Your task to perform on an android device: Open Android settings Image 0: 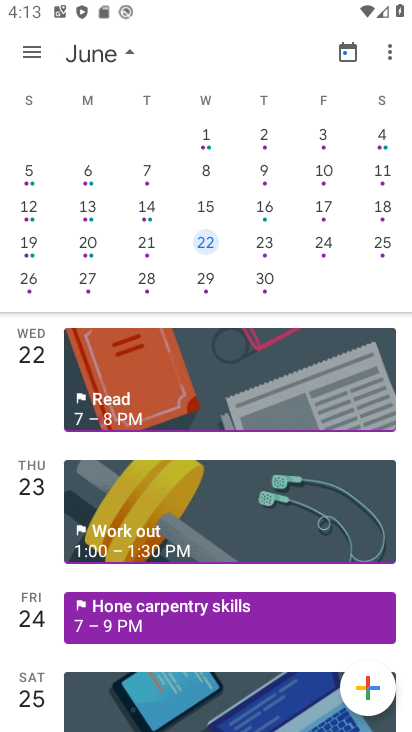
Step 0: press back button
Your task to perform on an android device: Open Android settings Image 1: 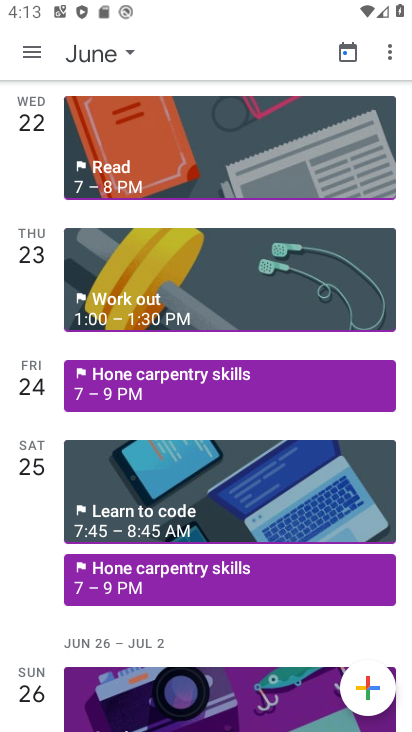
Step 1: press home button
Your task to perform on an android device: Open Android settings Image 2: 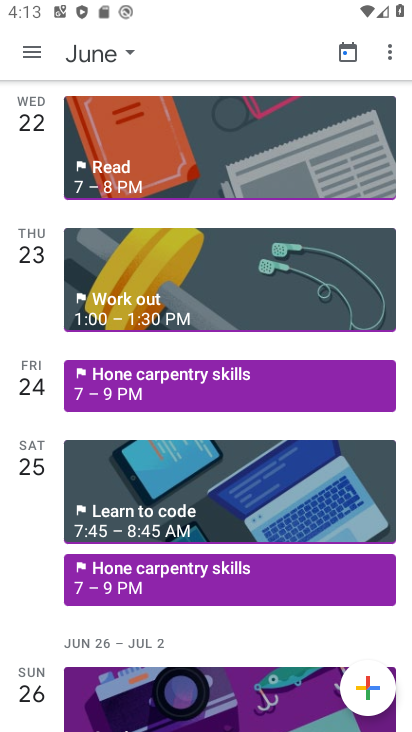
Step 2: press home button
Your task to perform on an android device: Open Android settings Image 3: 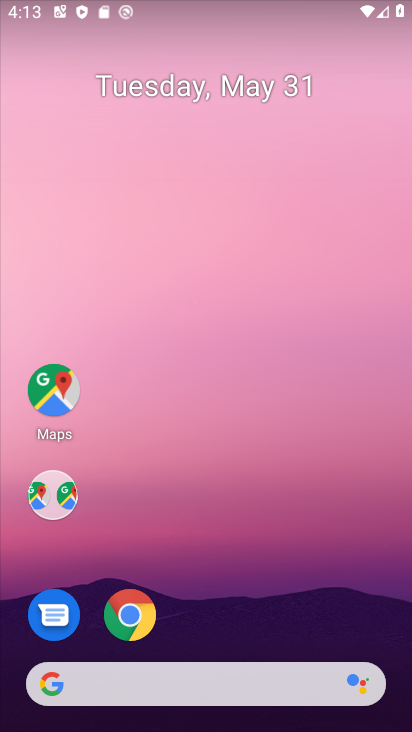
Step 3: drag from (226, 484) to (203, 141)
Your task to perform on an android device: Open Android settings Image 4: 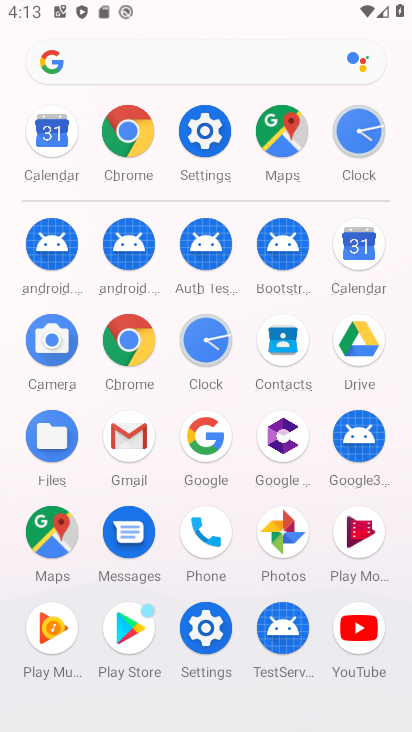
Step 4: click (212, 146)
Your task to perform on an android device: Open Android settings Image 5: 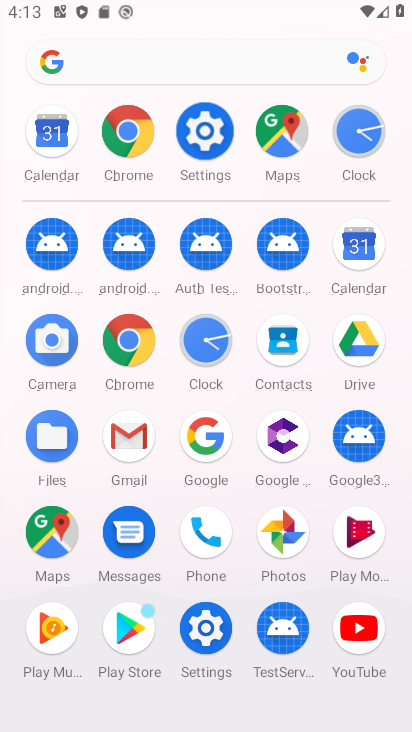
Step 5: click (212, 144)
Your task to perform on an android device: Open Android settings Image 6: 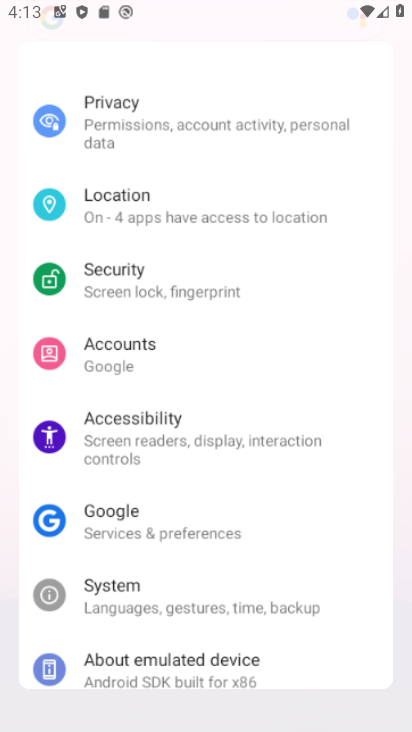
Step 6: click (212, 144)
Your task to perform on an android device: Open Android settings Image 7: 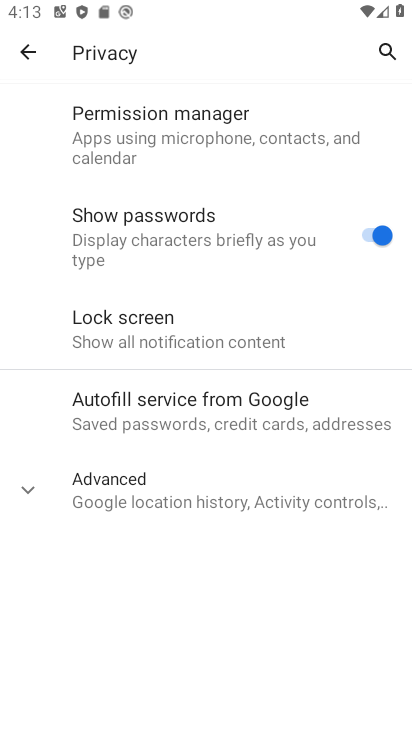
Step 7: click (22, 54)
Your task to perform on an android device: Open Android settings Image 8: 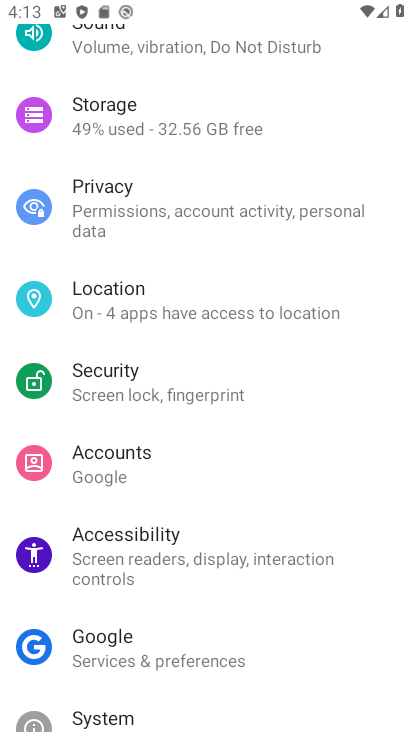
Step 8: drag from (119, 213) to (103, 259)
Your task to perform on an android device: Open Android settings Image 9: 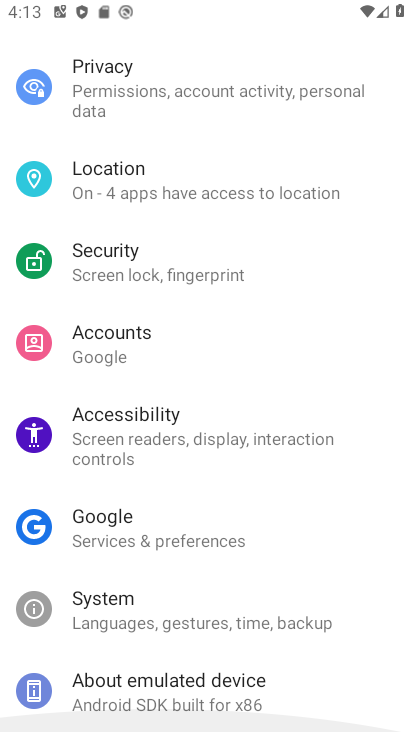
Step 9: drag from (155, 485) to (172, 225)
Your task to perform on an android device: Open Android settings Image 10: 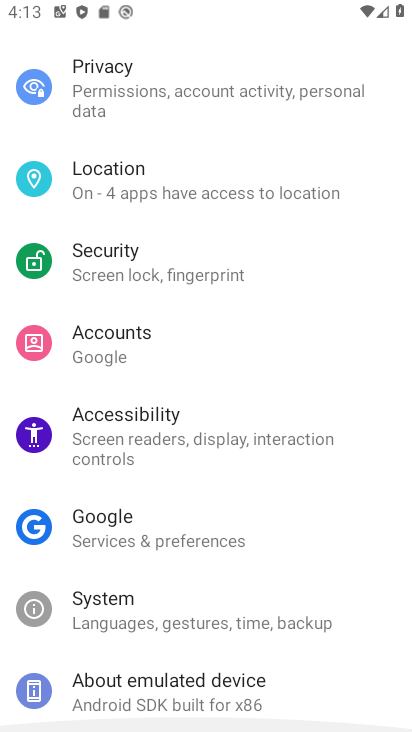
Step 10: drag from (172, 391) to (187, 187)
Your task to perform on an android device: Open Android settings Image 11: 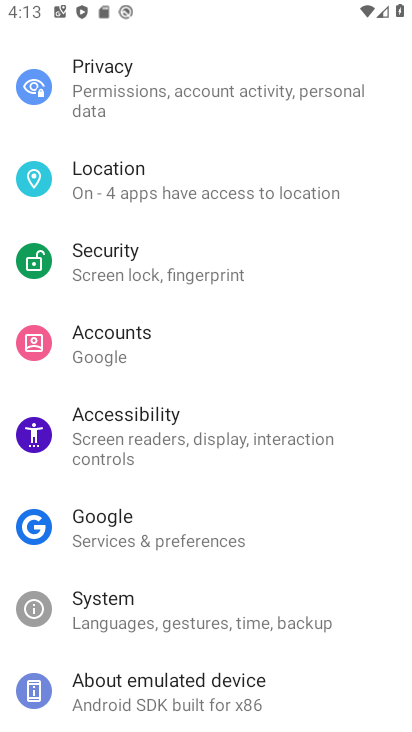
Step 11: click (168, 692)
Your task to perform on an android device: Open Android settings Image 12: 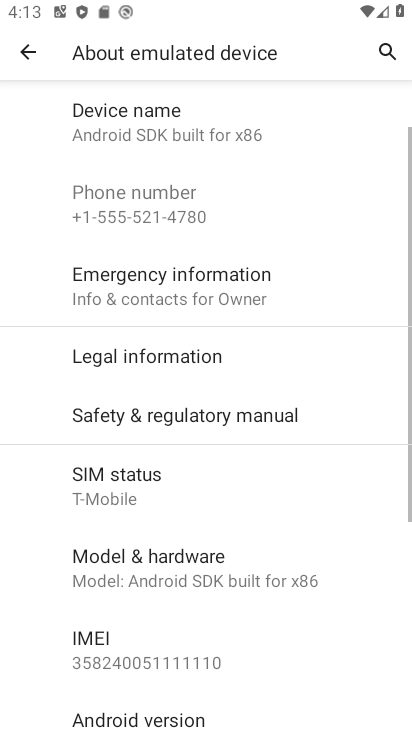
Step 12: task complete